Your task to perform on an android device: snooze an email in the gmail app Image 0: 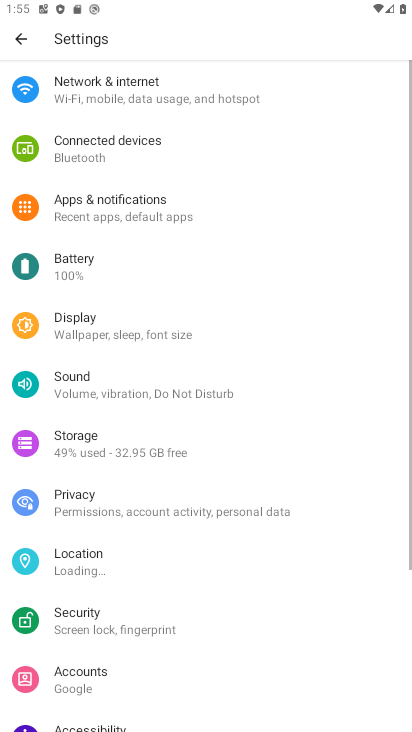
Step 0: press home button
Your task to perform on an android device: snooze an email in the gmail app Image 1: 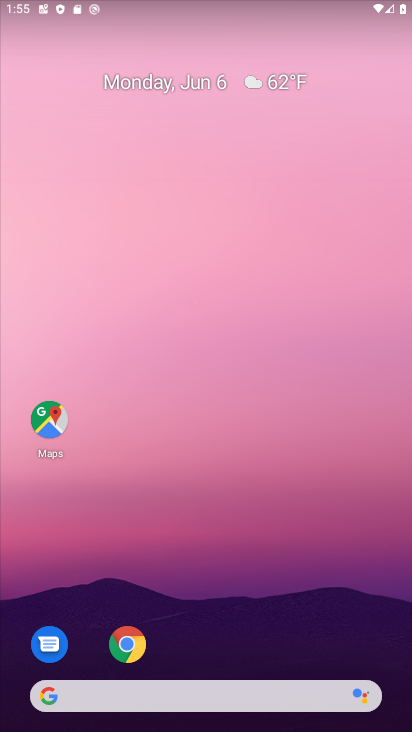
Step 1: drag from (142, 719) to (190, 186)
Your task to perform on an android device: snooze an email in the gmail app Image 2: 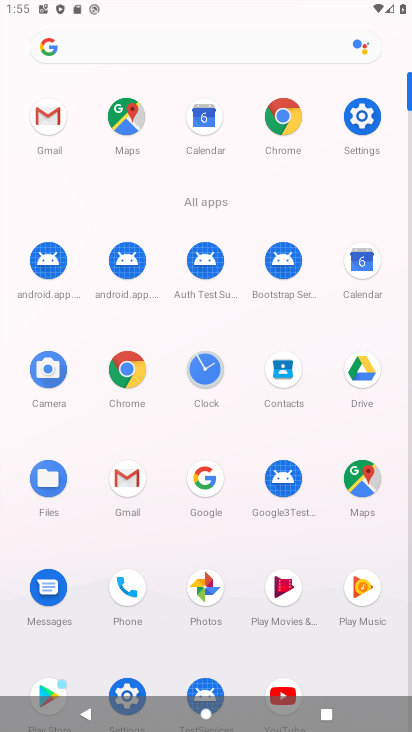
Step 2: click (122, 489)
Your task to perform on an android device: snooze an email in the gmail app Image 3: 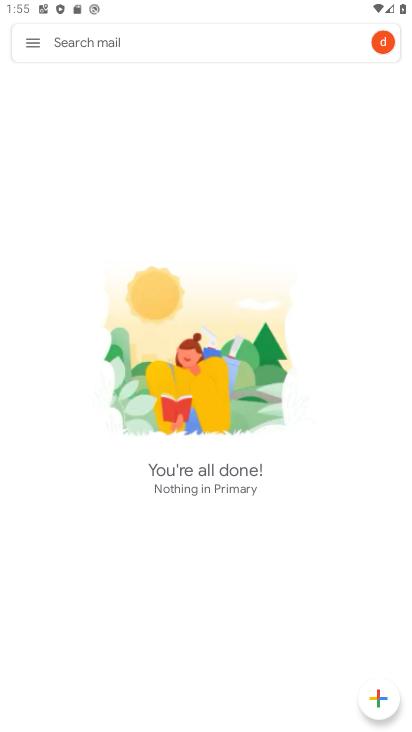
Step 3: click (29, 56)
Your task to perform on an android device: snooze an email in the gmail app Image 4: 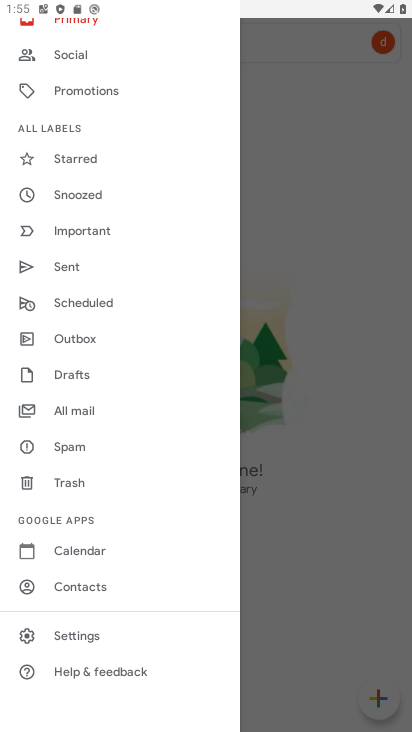
Step 4: click (71, 412)
Your task to perform on an android device: snooze an email in the gmail app Image 5: 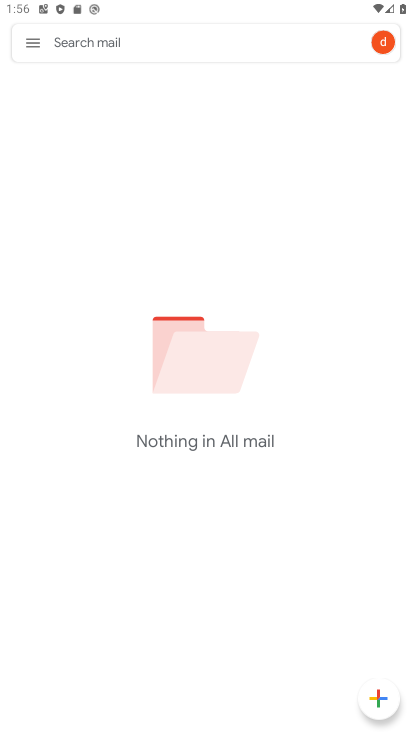
Step 5: task complete